Your task to perform on an android device: turn pop-ups on in chrome Image 0: 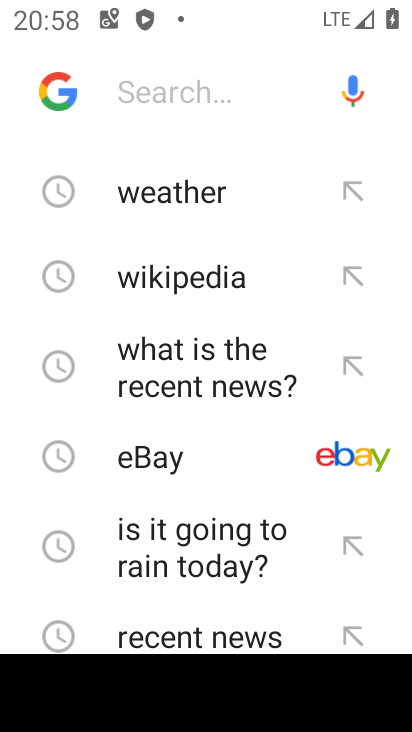
Step 0: press home button
Your task to perform on an android device: turn pop-ups on in chrome Image 1: 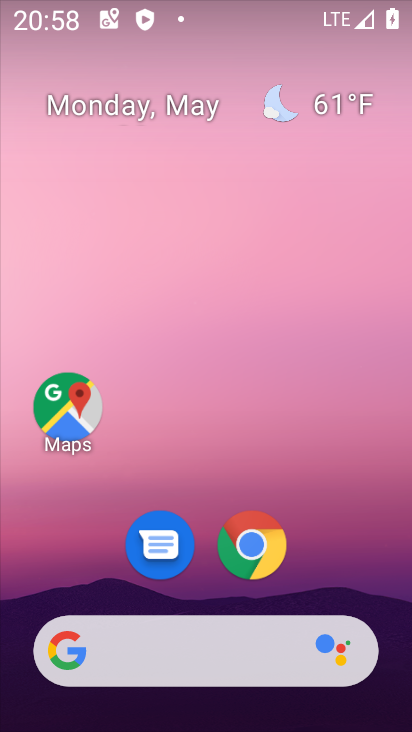
Step 1: click (237, 538)
Your task to perform on an android device: turn pop-ups on in chrome Image 2: 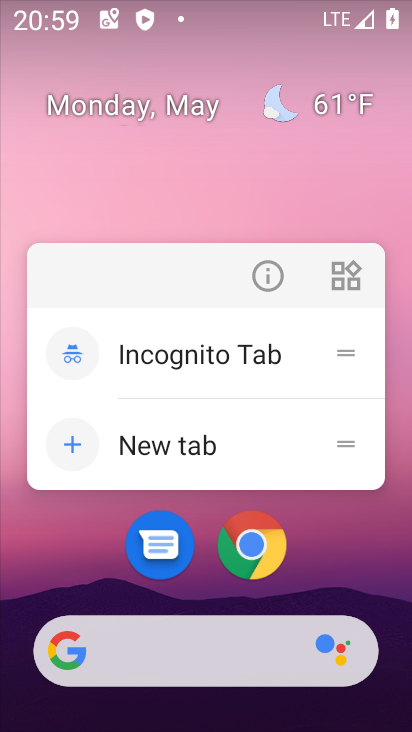
Step 2: click (254, 526)
Your task to perform on an android device: turn pop-ups on in chrome Image 3: 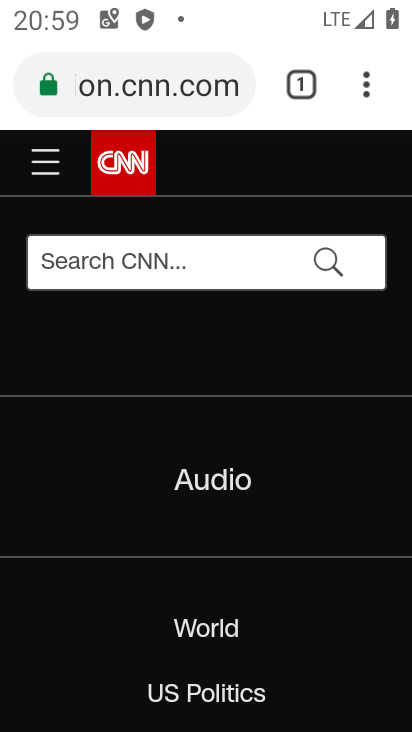
Step 3: drag from (357, 89) to (245, 611)
Your task to perform on an android device: turn pop-ups on in chrome Image 4: 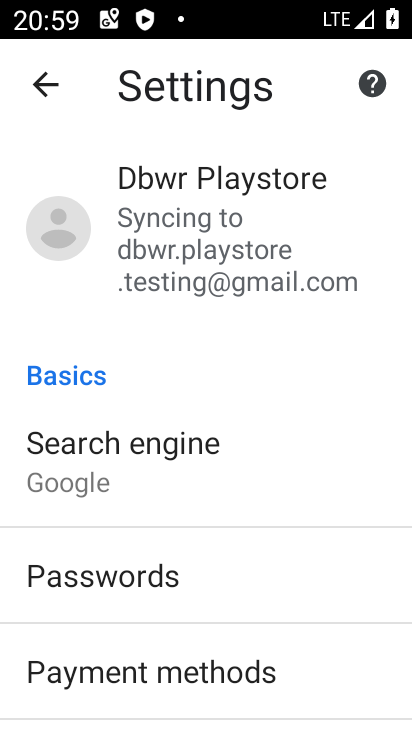
Step 4: drag from (164, 645) to (199, 267)
Your task to perform on an android device: turn pop-ups on in chrome Image 5: 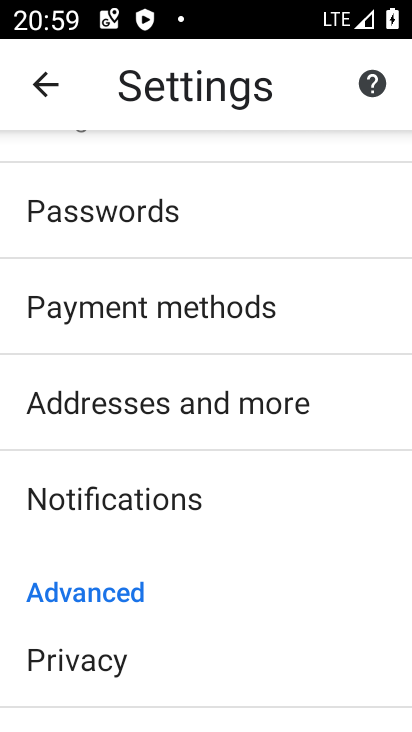
Step 5: drag from (196, 555) to (233, 74)
Your task to perform on an android device: turn pop-ups on in chrome Image 6: 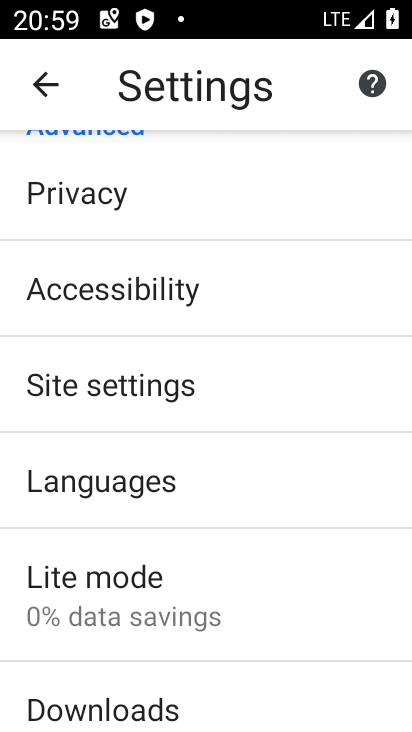
Step 6: click (142, 393)
Your task to perform on an android device: turn pop-ups on in chrome Image 7: 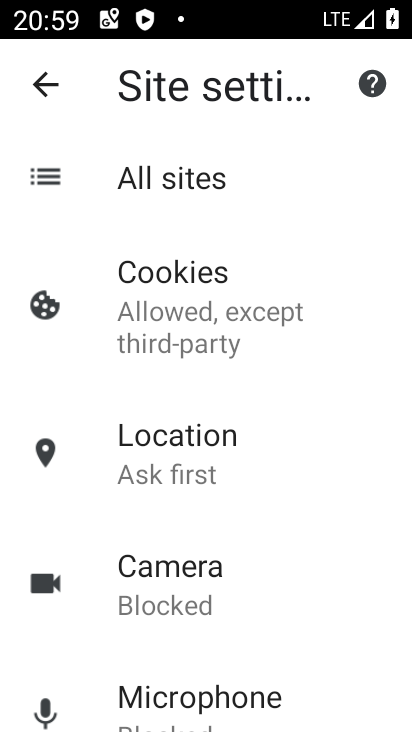
Step 7: drag from (183, 558) to (180, 170)
Your task to perform on an android device: turn pop-ups on in chrome Image 8: 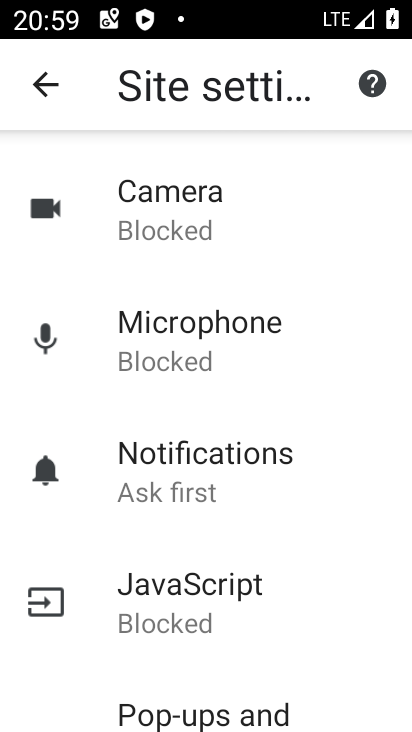
Step 8: click (161, 708)
Your task to perform on an android device: turn pop-ups on in chrome Image 9: 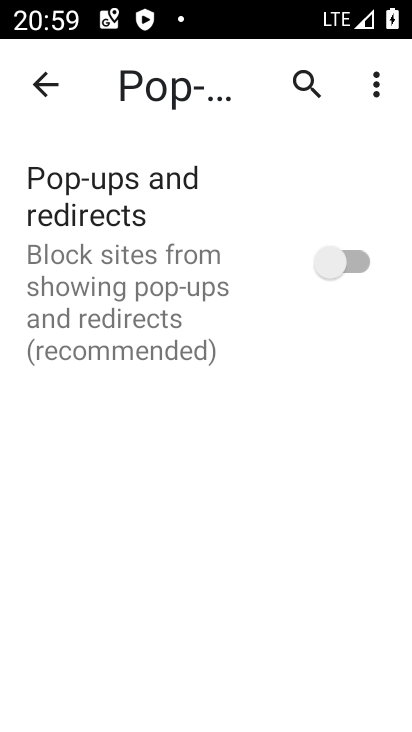
Step 9: click (352, 234)
Your task to perform on an android device: turn pop-ups on in chrome Image 10: 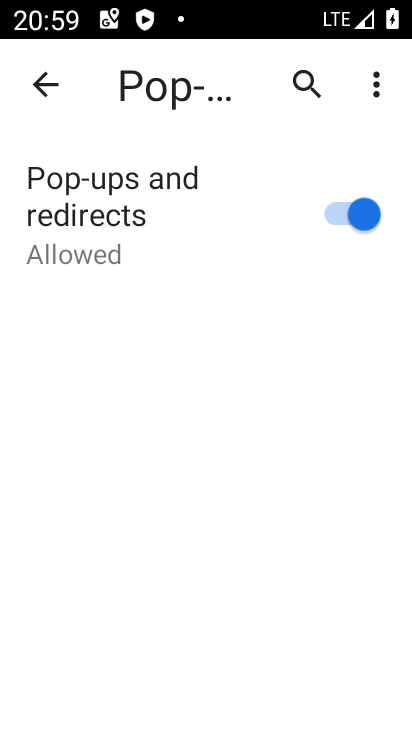
Step 10: task complete